Your task to perform on an android device: Do I have any events this weekend? Image 0: 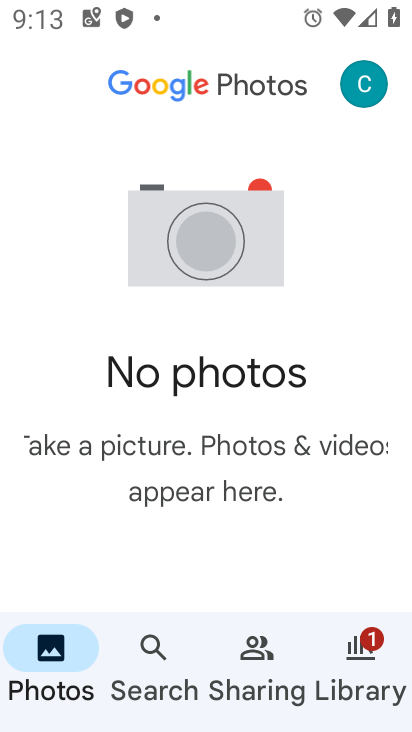
Step 0: press home button
Your task to perform on an android device: Do I have any events this weekend? Image 1: 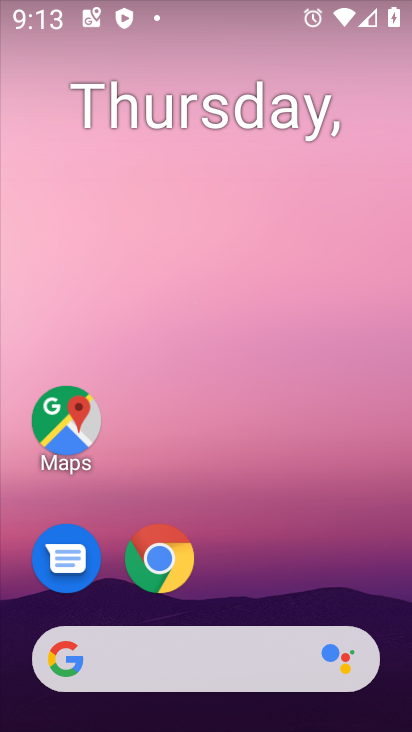
Step 1: drag from (317, 568) to (387, 146)
Your task to perform on an android device: Do I have any events this weekend? Image 2: 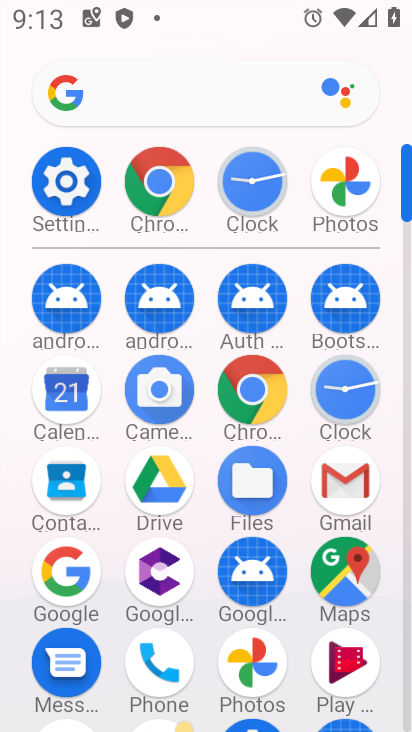
Step 2: click (65, 403)
Your task to perform on an android device: Do I have any events this weekend? Image 3: 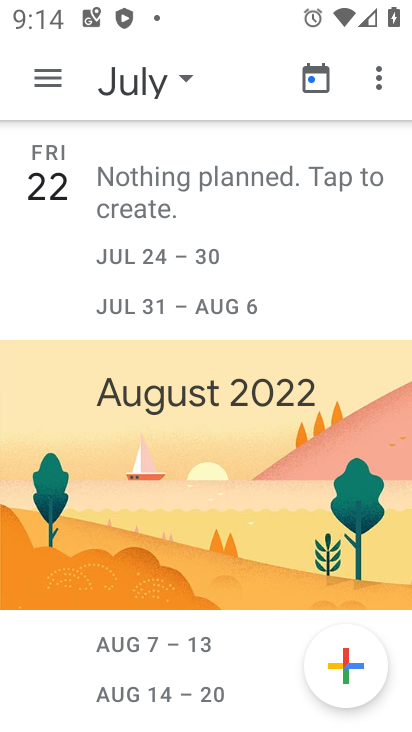
Step 3: task complete